Your task to perform on an android device: create a new album in the google photos Image 0: 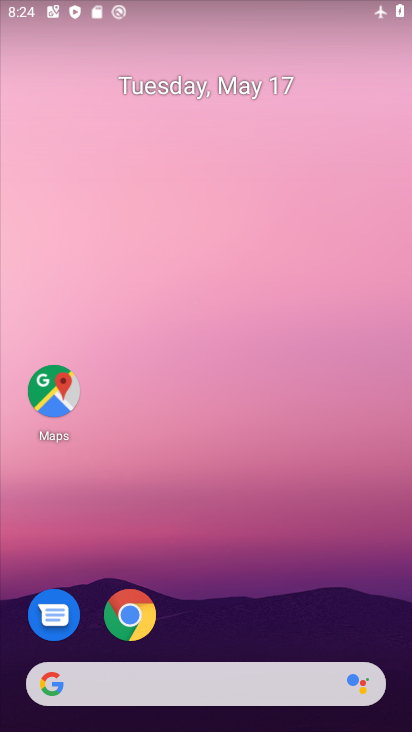
Step 0: drag from (237, 594) to (261, 222)
Your task to perform on an android device: create a new album in the google photos Image 1: 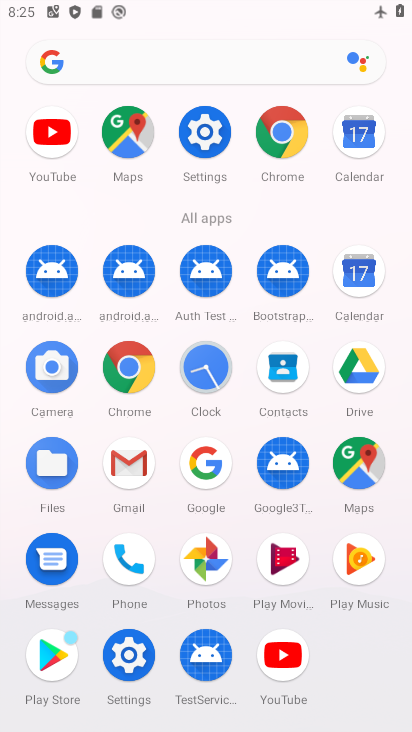
Step 1: click (212, 557)
Your task to perform on an android device: create a new album in the google photos Image 2: 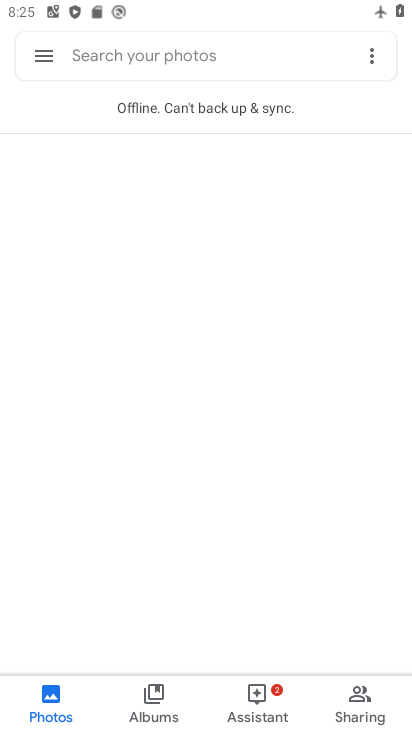
Step 2: click (167, 707)
Your task to perform on an android device: create a new album in the google photos Image 3: 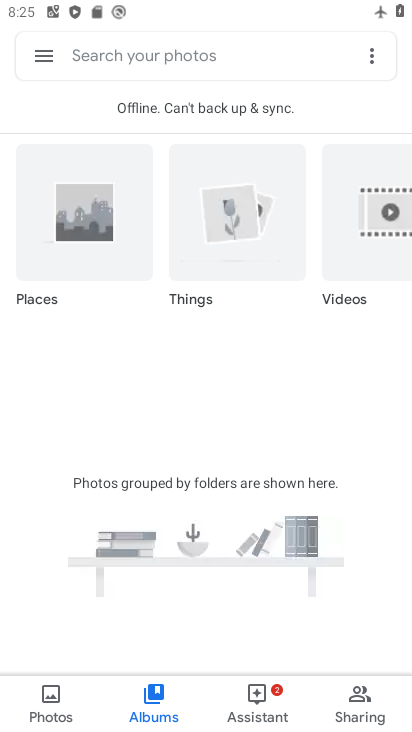
Step 3: click (82, 252)
Your task to perform on an android device: create a new album in the google photos Image 4: 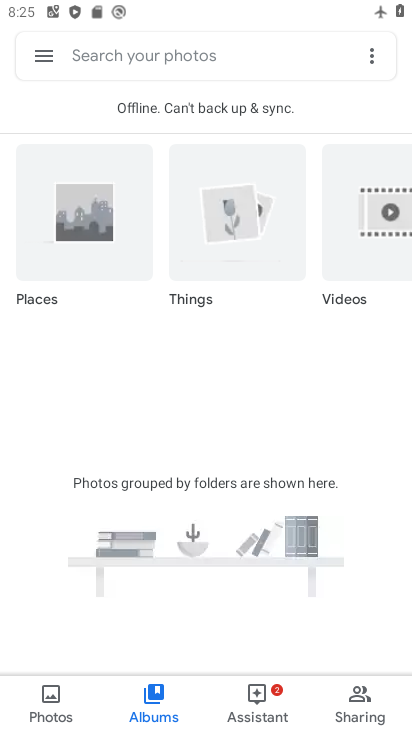
Step 4: click (82, 251)
Your task to perform on an android device: create a new album in the google photos Image 5: 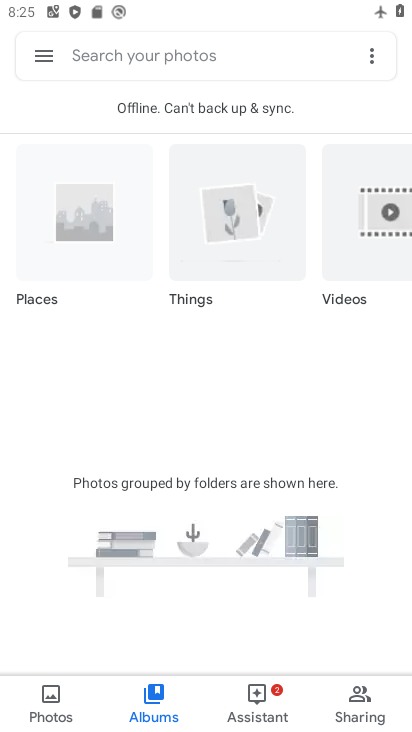
Step 5: click (82, 251)
Your task to perform on an android device: create a new album in the google photos Image 6: 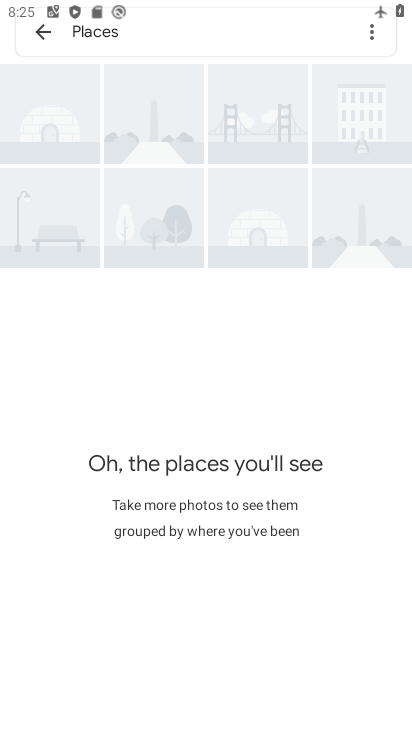
Step 6: click (127, 314)
Your task to perform on an android device: create a new album in the google photos Image 7: 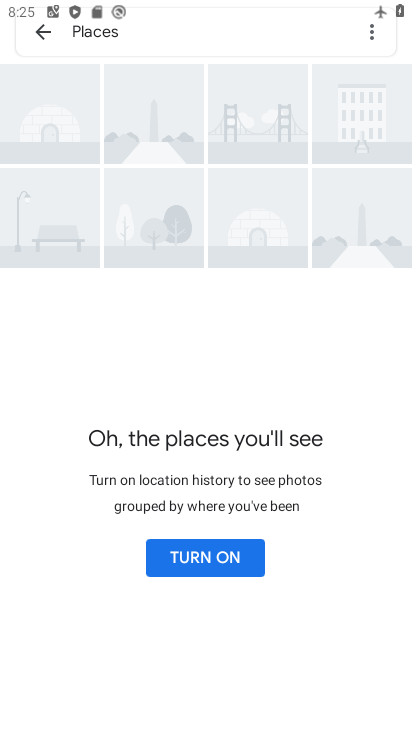
Step 7: task complete